Your task to perform on an android device: What's the weather like in Mumbai? Image 0: 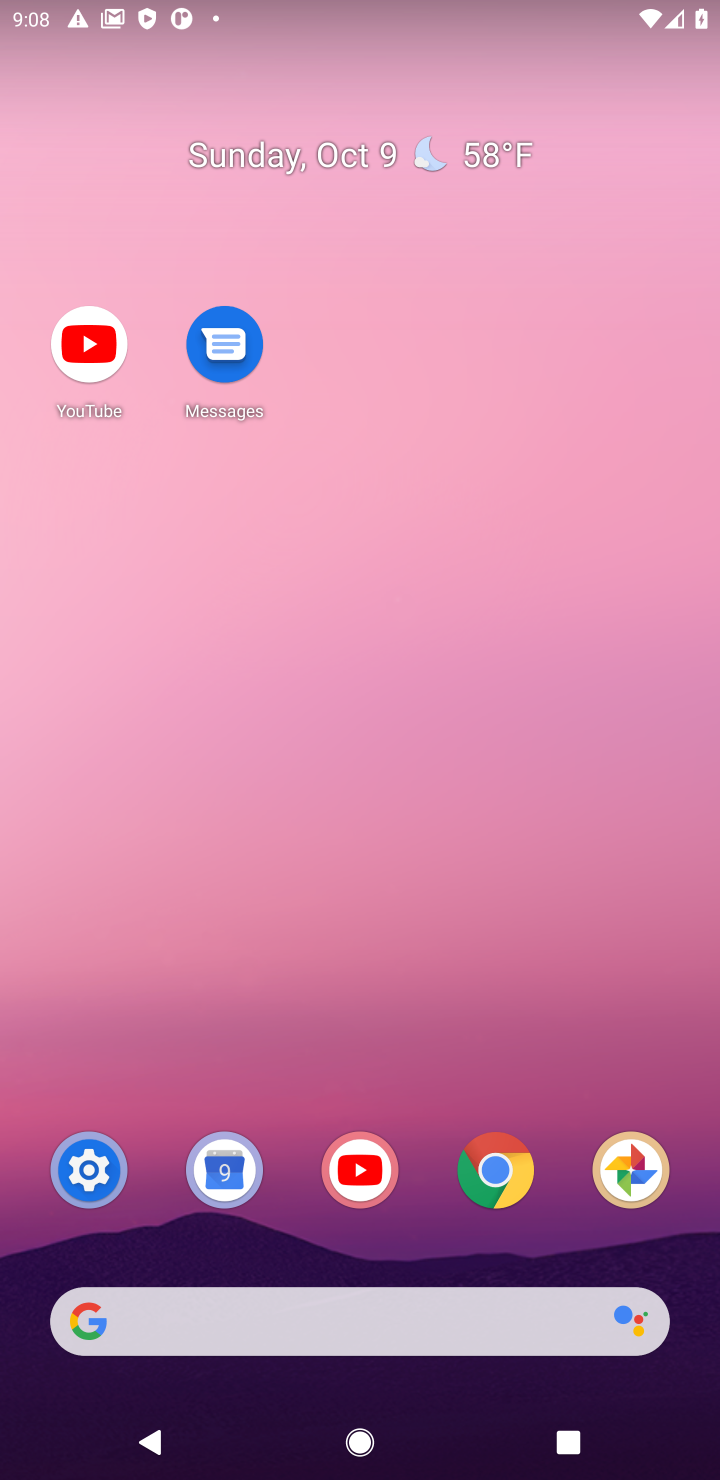
Step 0: drag from (241, 97) to (12, 68)
Your task to perform on an android device: What's the weather like in Mumbai? Image 1: 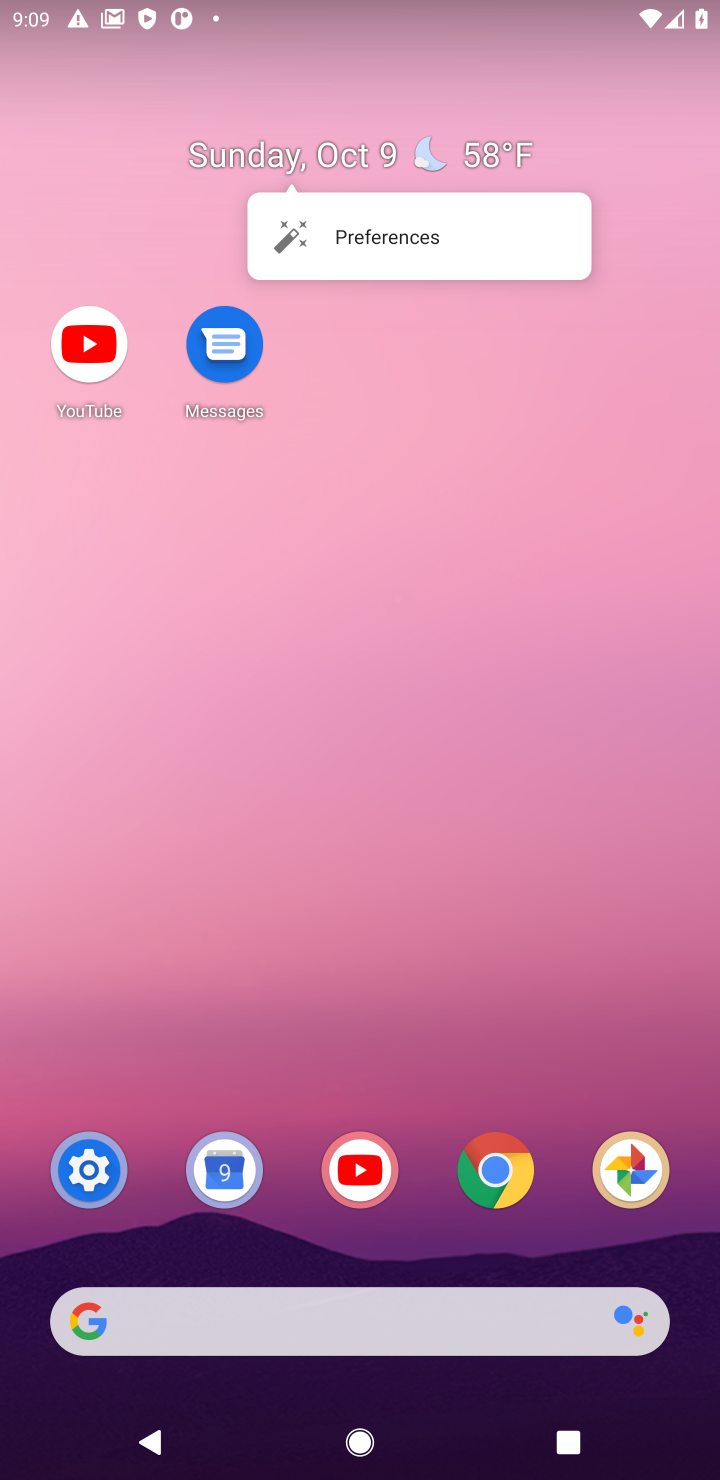
Step 1: click (337, 448)
Your task to perform on an android device: What's the weather like in Mumbai? Image 2: 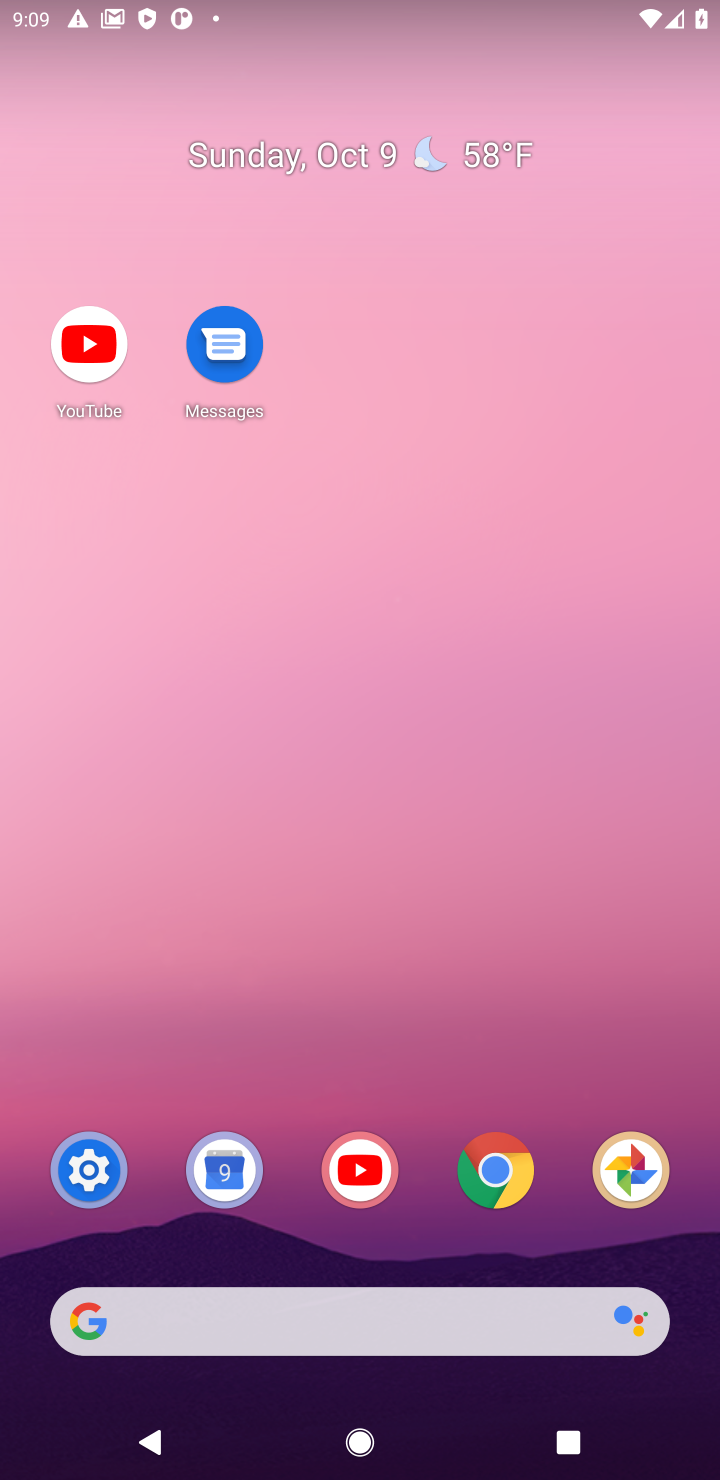
Step 2: drag from (309, 1083) to (180, 671)
Your task to perform on an android device: What's the weather like in Mumbai? Image 3: 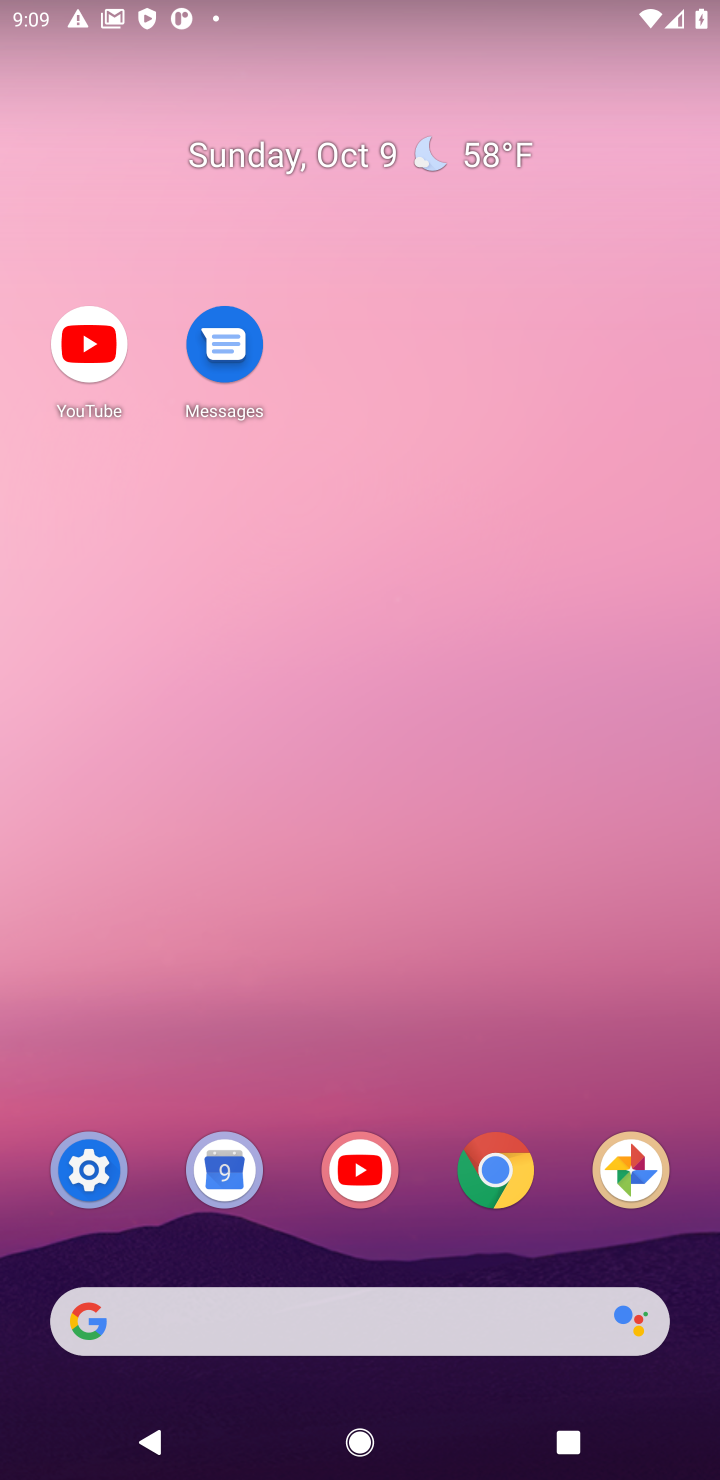
Step 3: drag from (110, 484) to (3, 368)
Your task to perform on an android device: What's the weather like in Mumbai? Image 4: 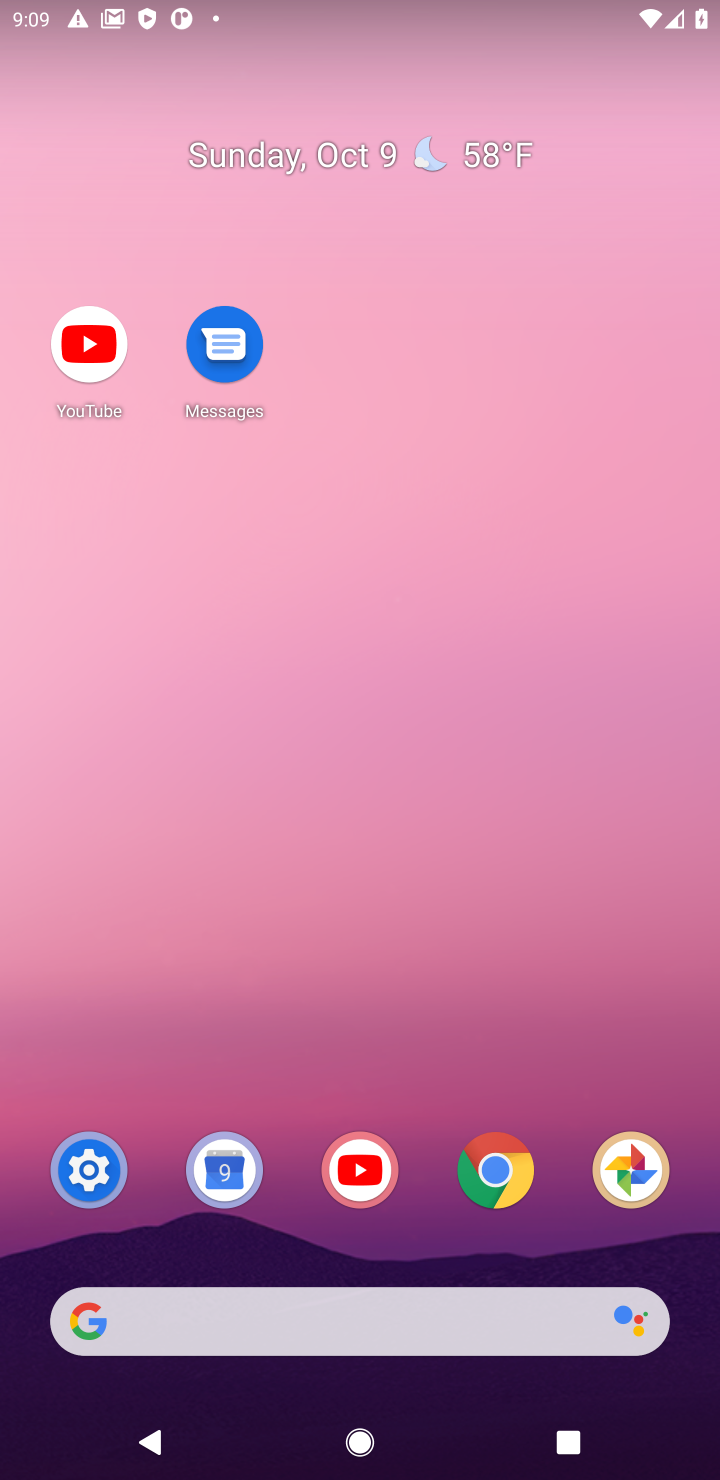
Step 4: drag from (328, 289) to (219, 8)
Your task to perform on an android device: What's the weather like in Mumbai? Image 5: 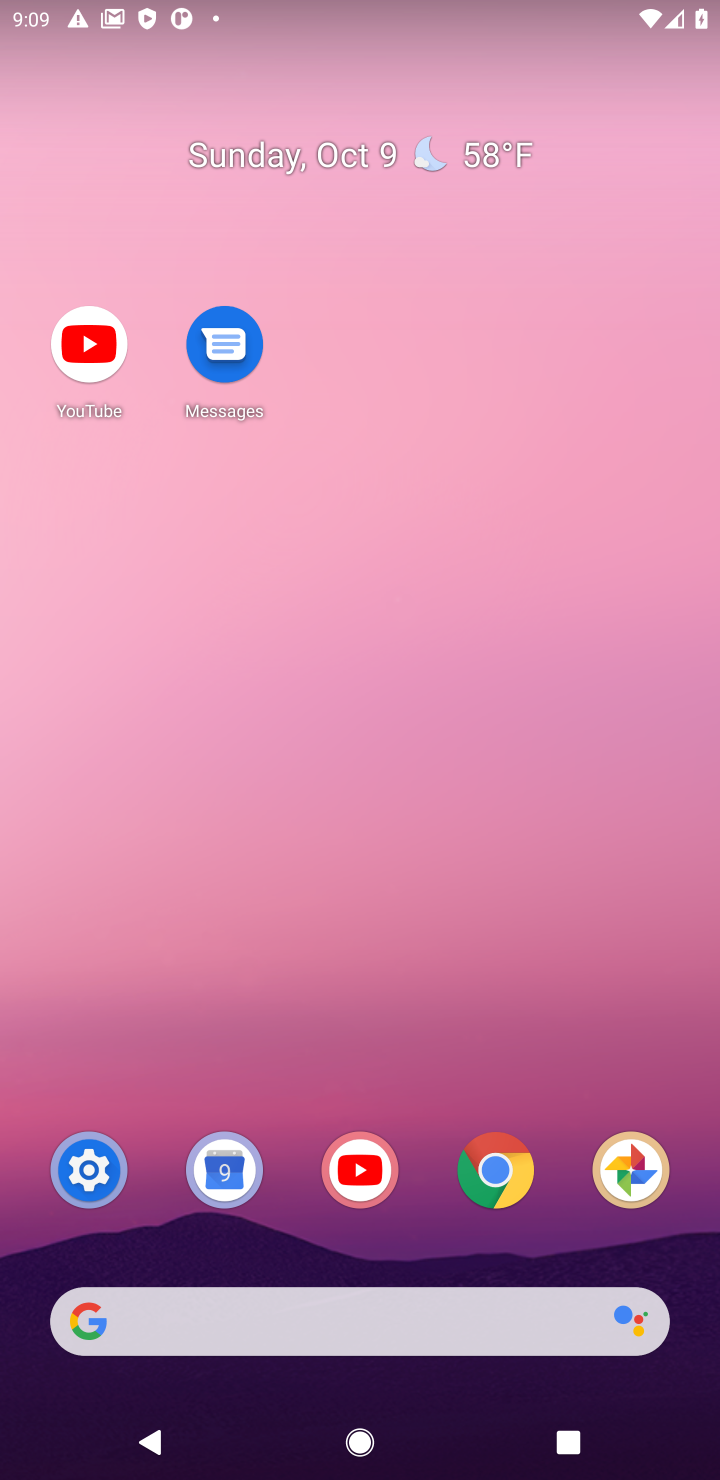
Step 5: drag from (320, 589) to (291, 6)
Your task to perform on an android device: What's the weather like in Mumbai? Image 6: 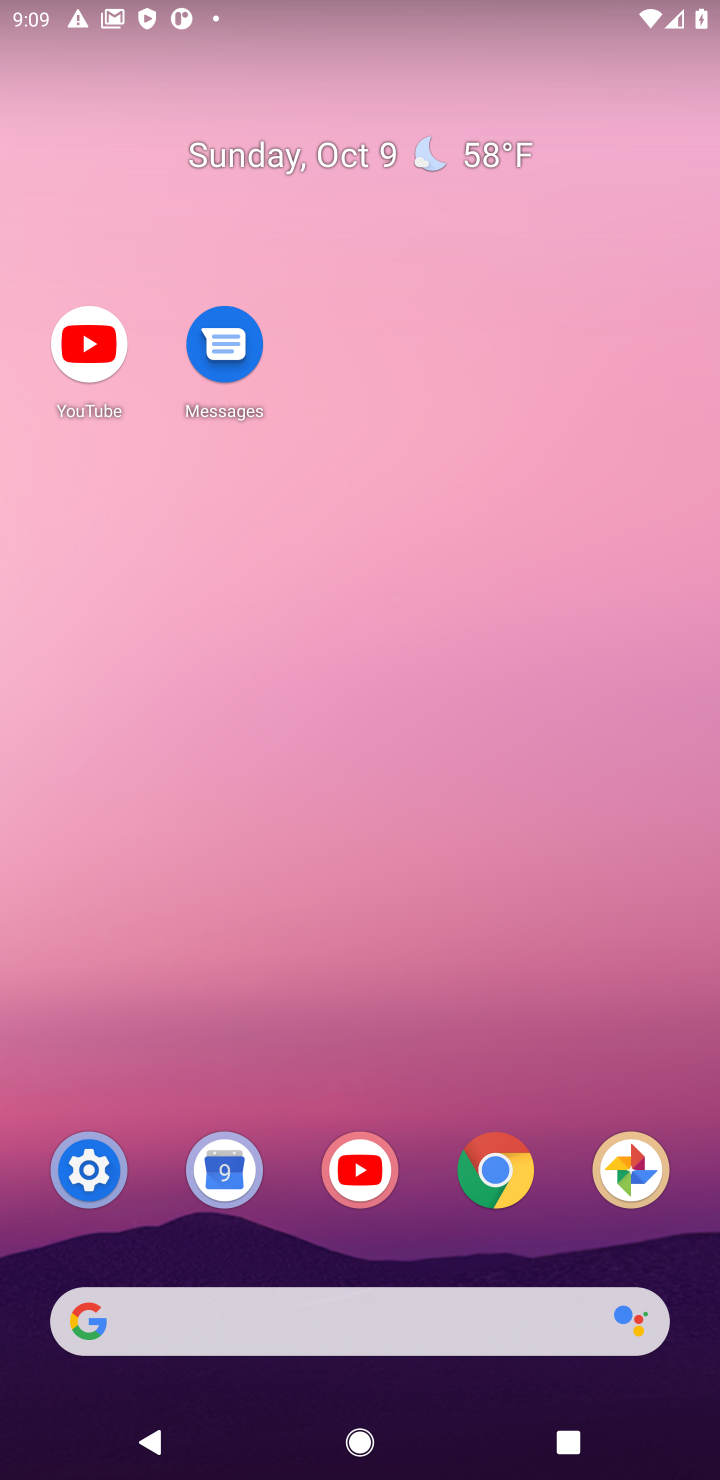
Step 6: drag from (318, 820) to (49, 95)
Your task to perform on an android device: What's the weather like in Mumbai? Image 7: 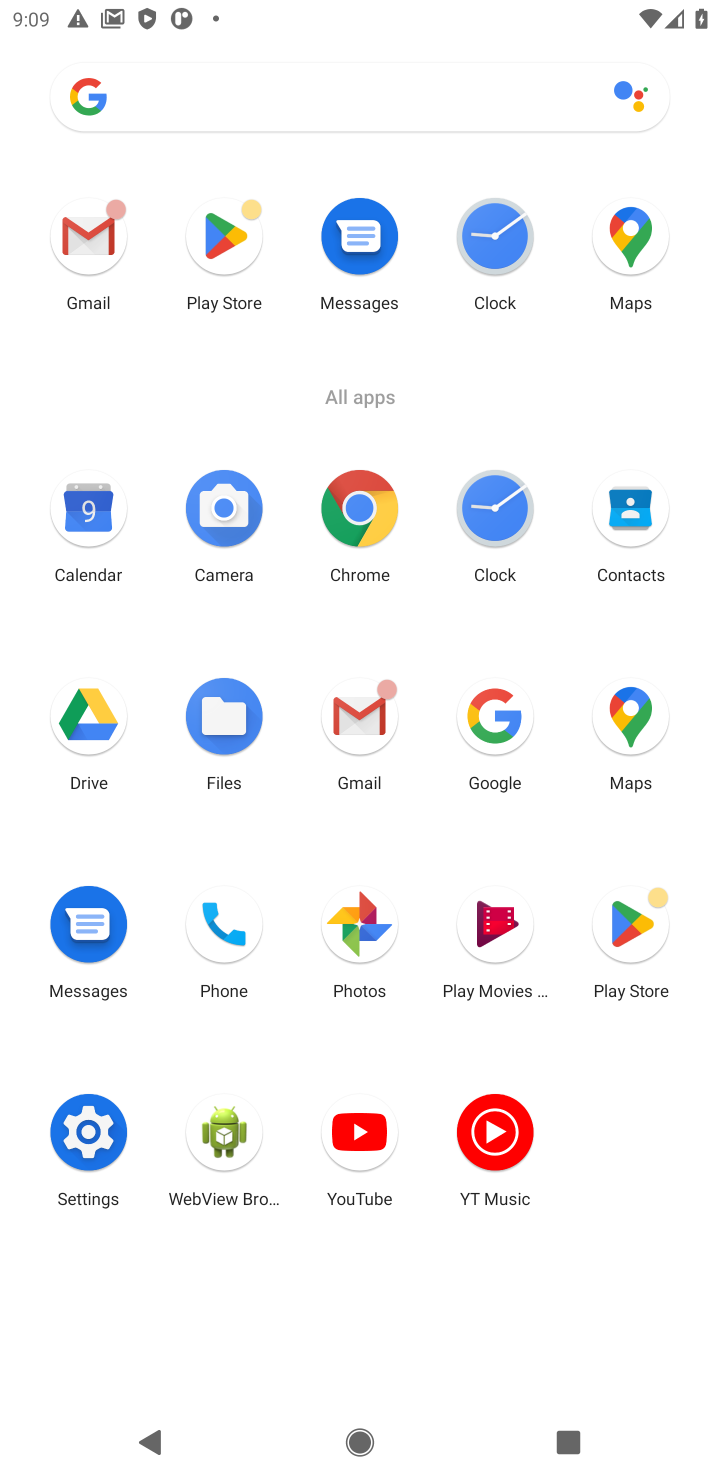
Step 7: click (507, 732)
Your task to perform on an android device: What's the weather like in Mumbai? Image 8: 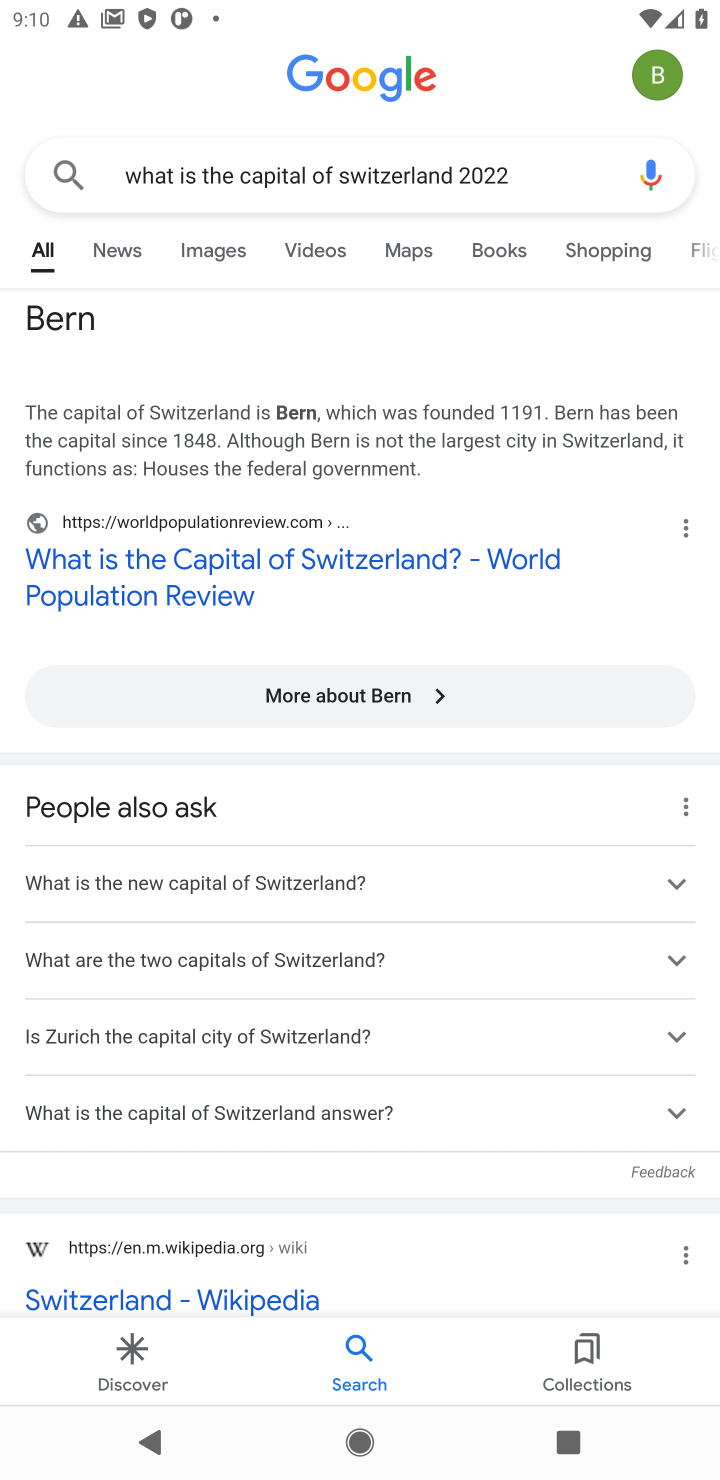
Step 8: click (567, 168)
Your task to perform on an android device: What's the weather like in Mumbai? Image 9: 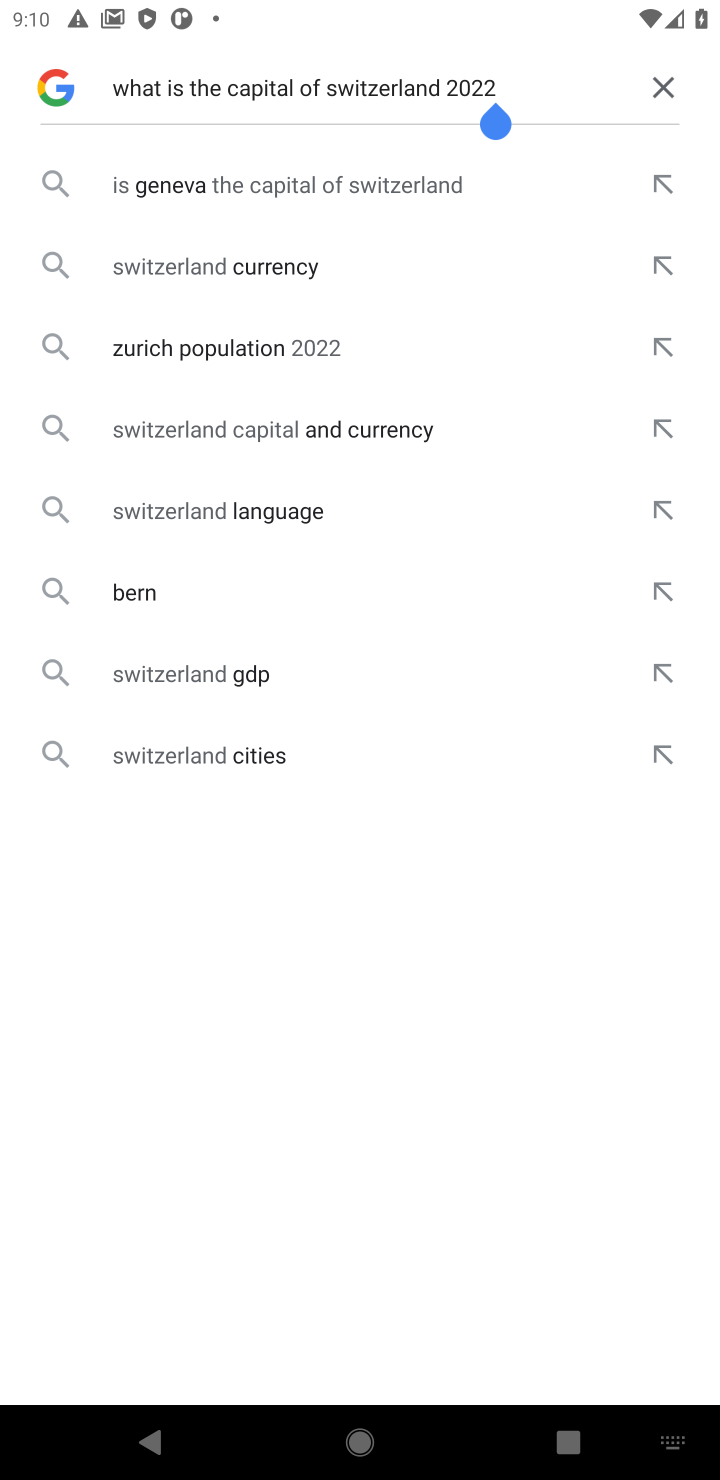
Step 9: click (670, 78)
Your task to perform on an android device: What's the weather like in Mumbai? Image 10: 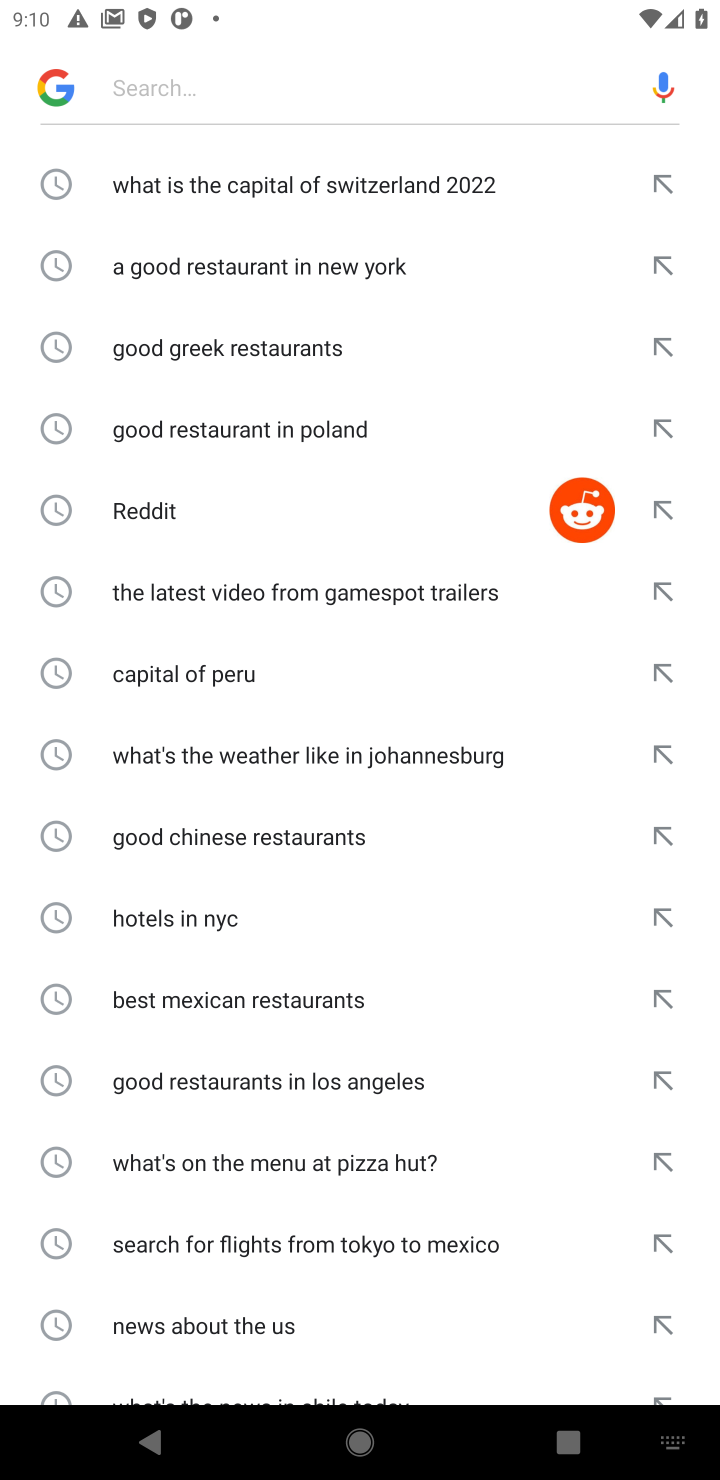
Step 10: type "What's the weather like in Mumbai?"
Your task to perform on an android device: What's the weather like in Mumbai? Image 11: 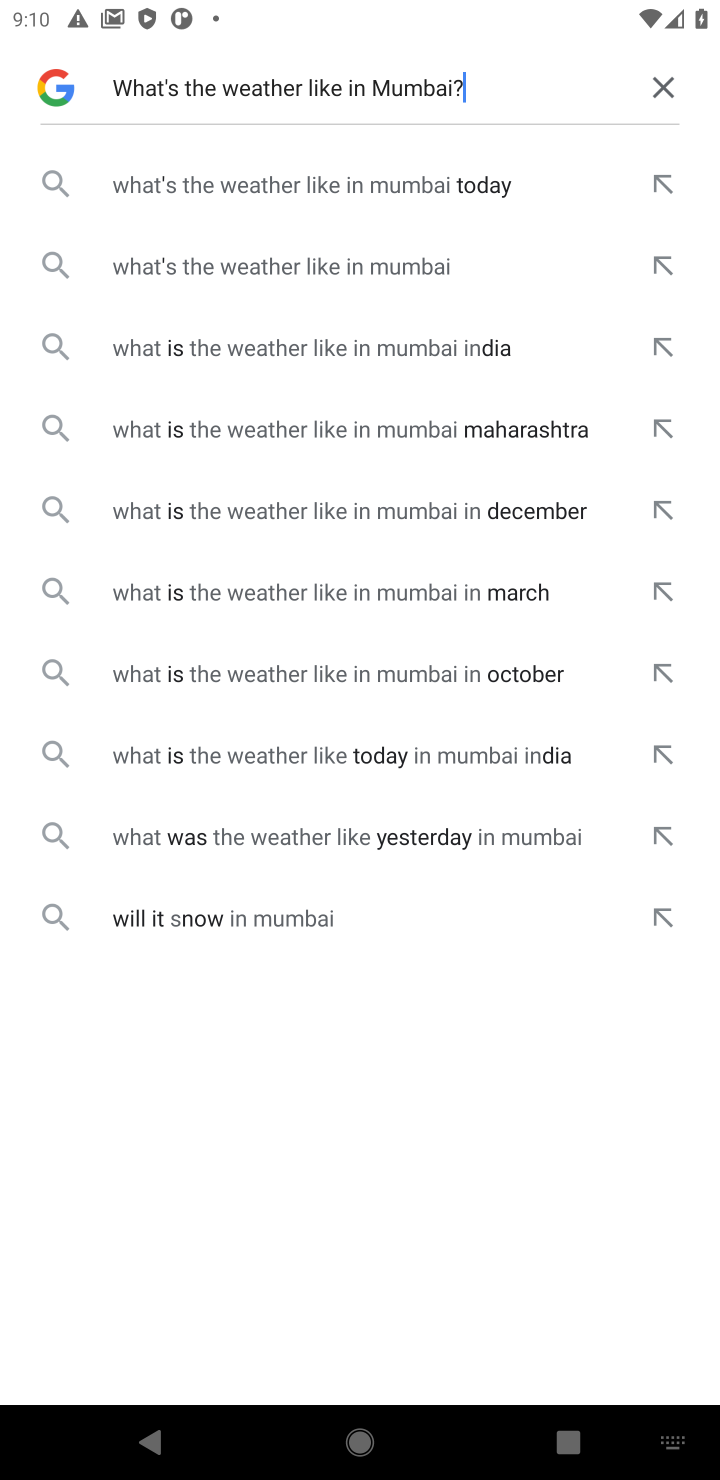
Step 11: click (321, 186)
Your task to perform on an android device: What's the weather like in Mumbai? Image 12: 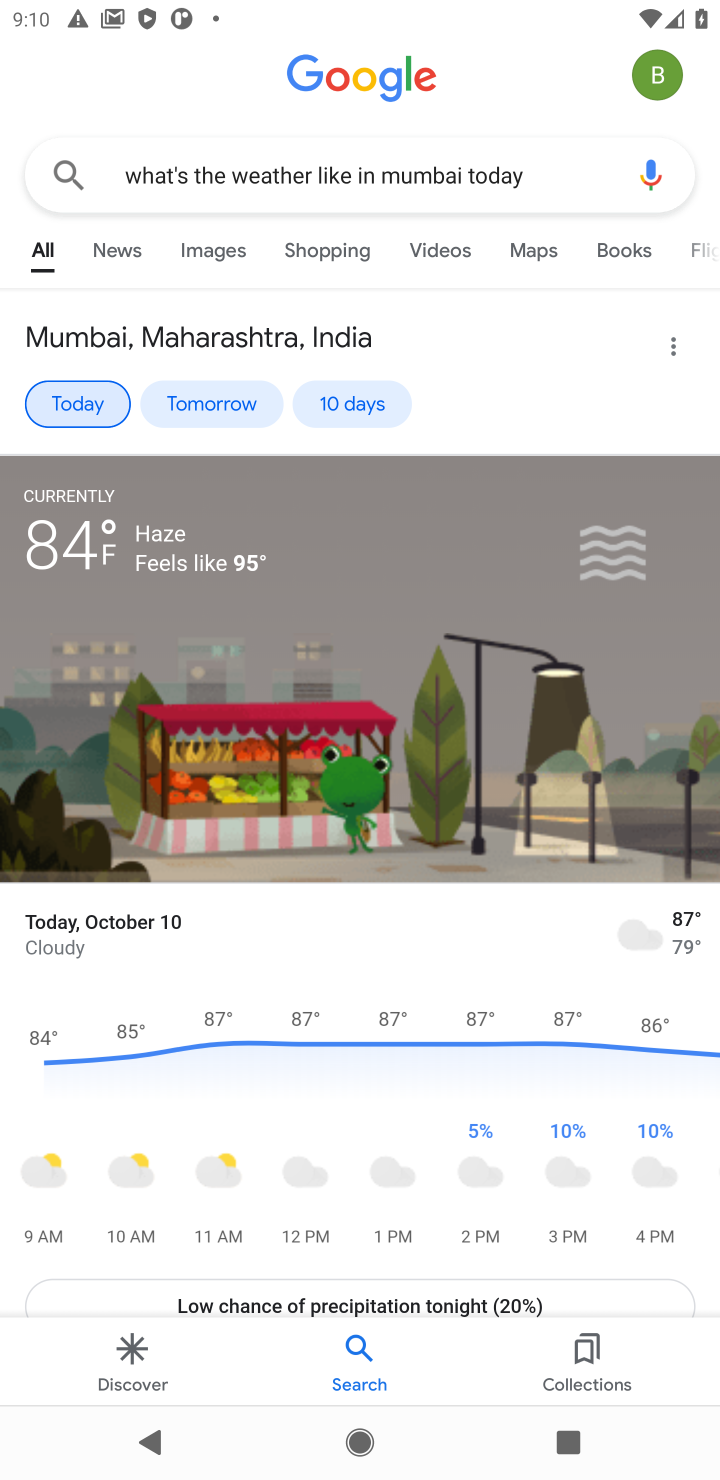
Step 12: task complete